Your task to perform on an android device: search for starred emails in the gmail app Image 0: 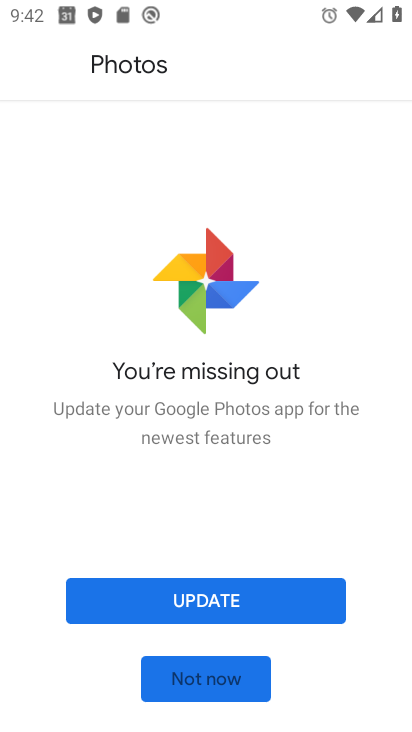
Step 0: press home button
Your task to perform on an android device: search for starred emails in the gmail app Image 1: 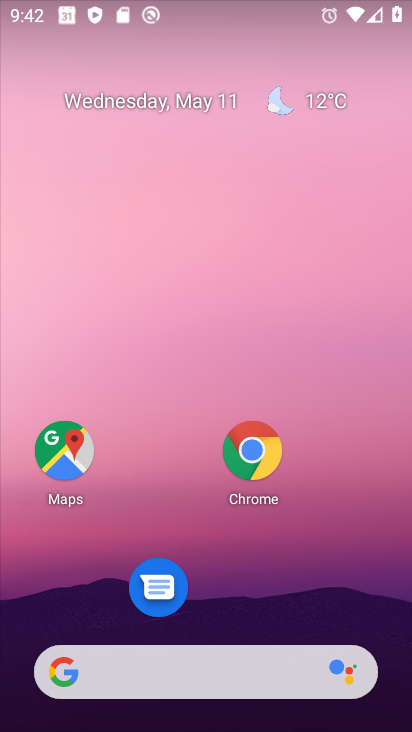
Step 1: drag from (369, 421) to (369, 15)
Your task to perform on an android device: search for starred emails in the gmail app Image 2: 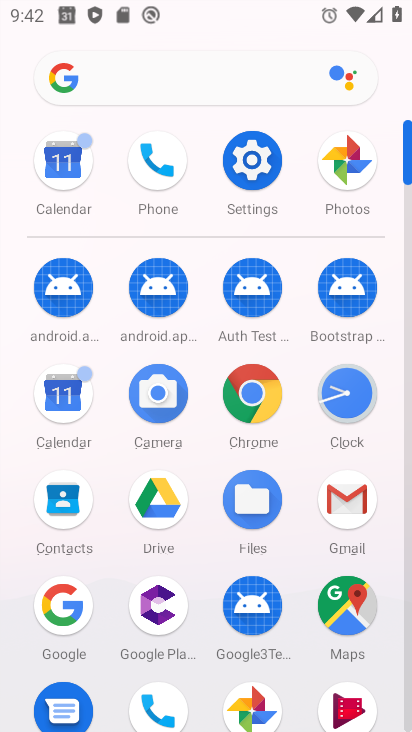
Step 2: click (350, 482)
Your task to perform on an android device: search for starred emails in the gmail app Image 3: 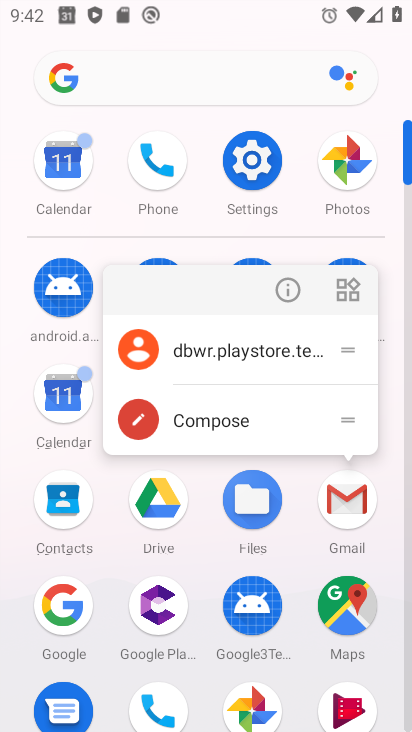
Step 3: click (347, 501)
Your task to perform on an android device: search for starred emails in the gmail app Image 4: 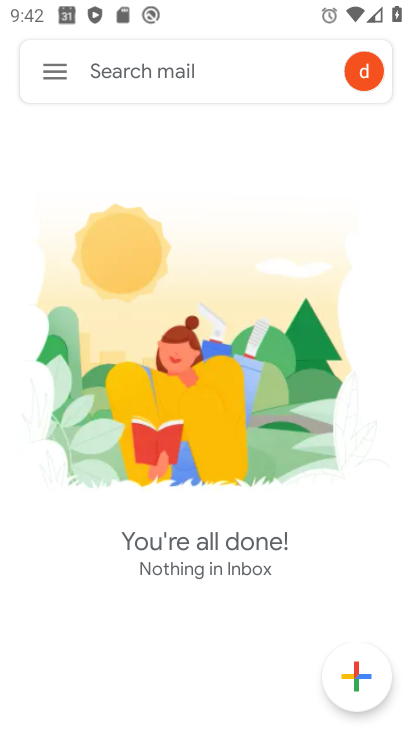
Step 4: click (60, 83)
Your task to perform on an android device: search for starred emails in the gmail app Image 5: 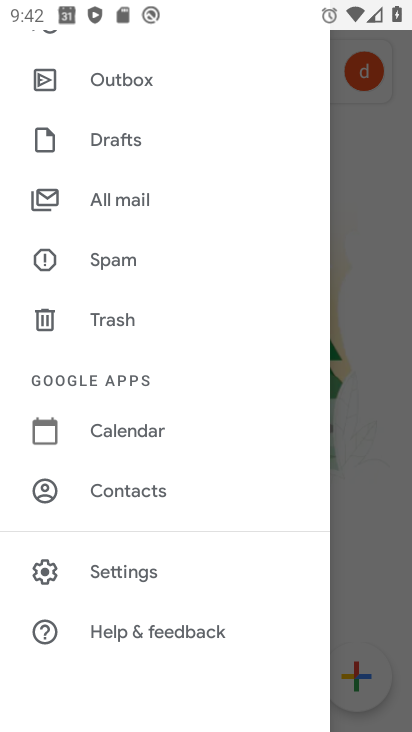
Step 5: drag from (172, 237) to (186, 625)
Your task to perform on an android device: search for starred emails in the gmail app Image 6: 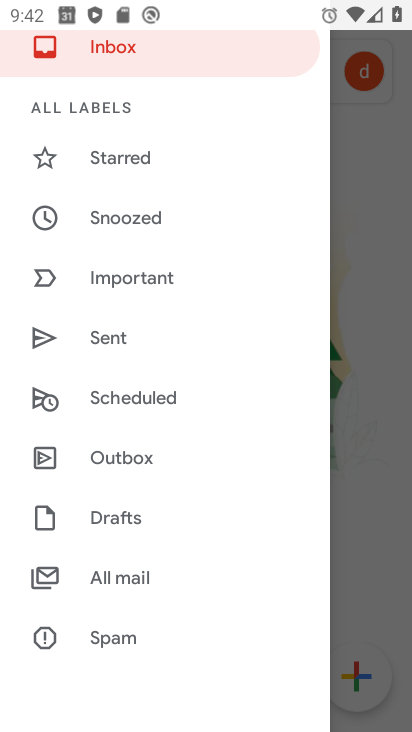
Step 6: click (109, 170)
Your task to perform on an android device: search for starred emails in the gmail app Image 7: 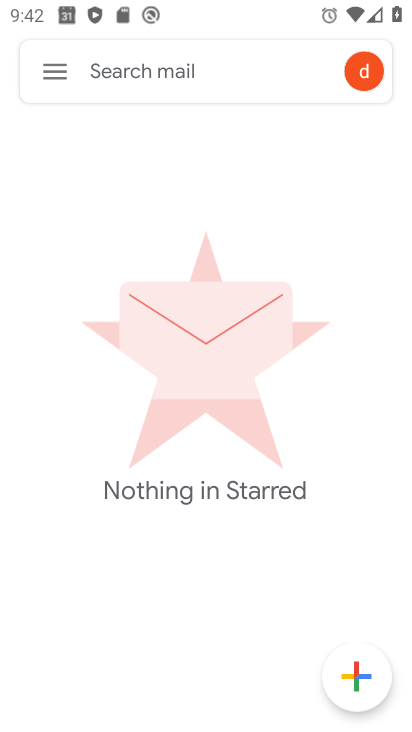
Step 7: task complete